Your task to perform on an android device: open chrome and create a bookmark for the current page Image 0: 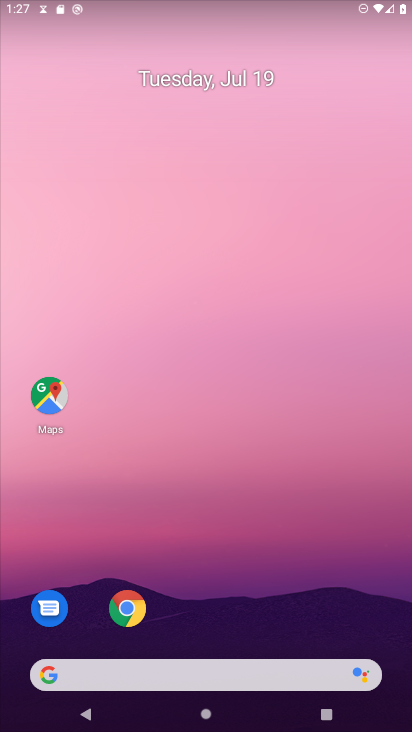
Step 0: drag from (189, 648) to (243, 69)
Your task to perform on an android device: open chrome and create a bookmark for the current page Image 1: 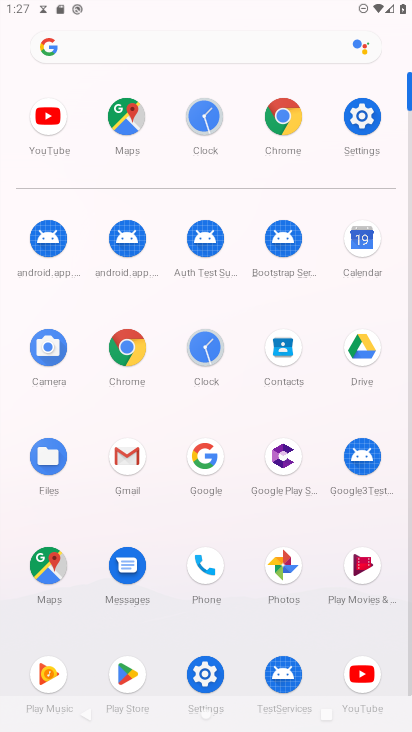
Step 1: click (138, 344)
Your task to perform on an android device: open chrome and create a bookmark for the current page Image 2: 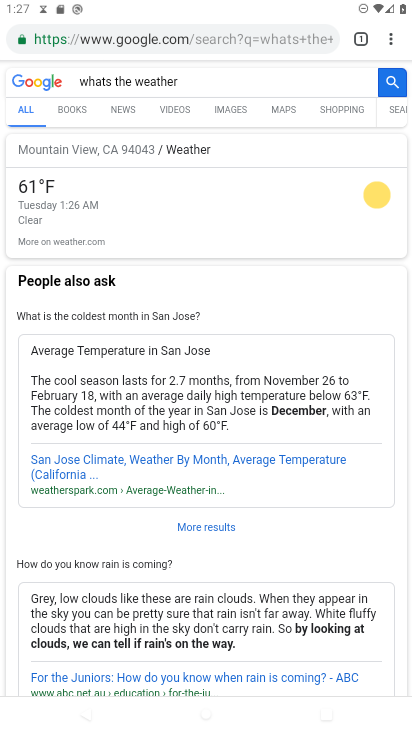
Step 2: task complete